Your task to perform on an android device: Go to CNN.com Image 0: 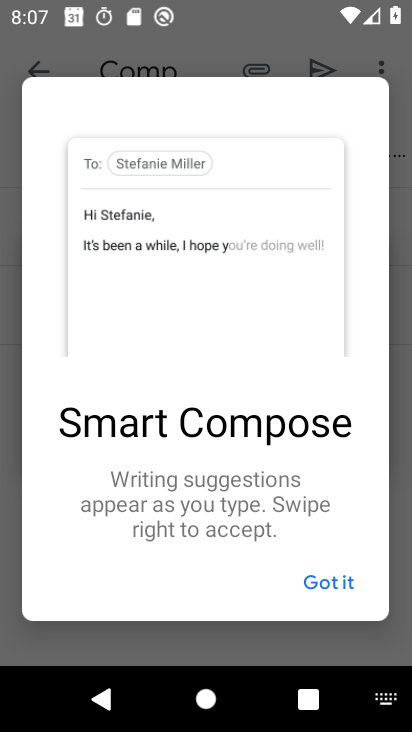
Step 0: press home button
Your task to perform on an android device: Go to CNN.com Image 1: 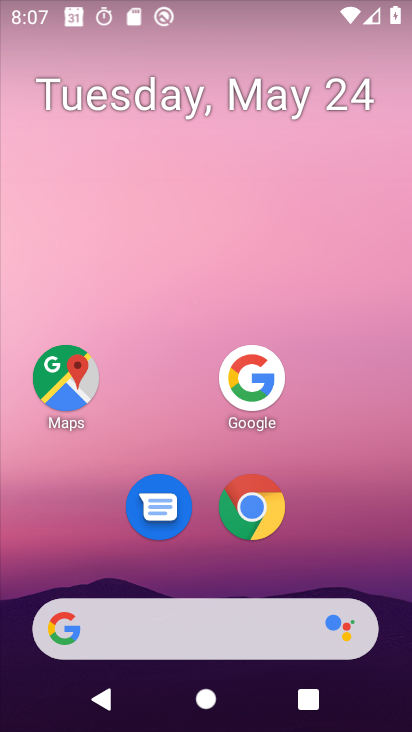
Step 1: click (252, 504)
Your task to perform on an android device: Go to CNN.com Image 2: 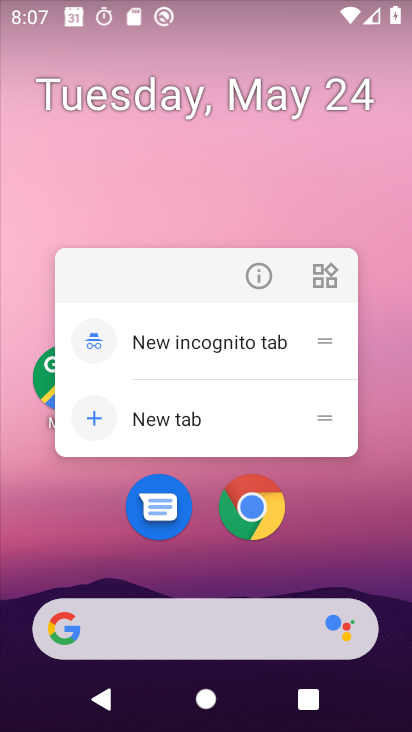
Step 2: click (249, 524)
Your task to perform on an android device: Go to CNN.com Image 3: 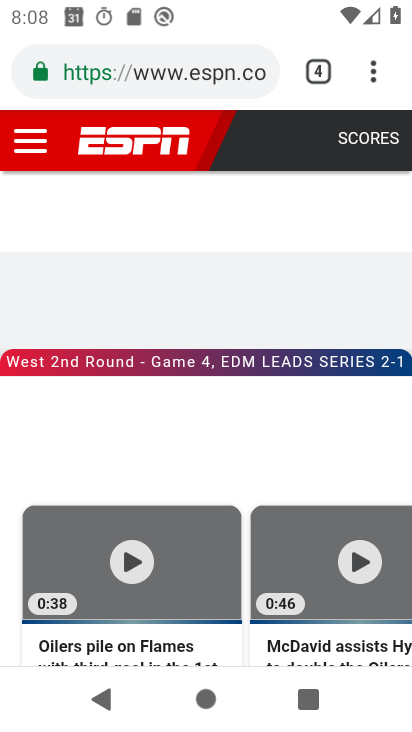
Step 3: drag from (379, 82) to (292, 146)
Your task to perform on an android device: Go to CNN.com Image 4: 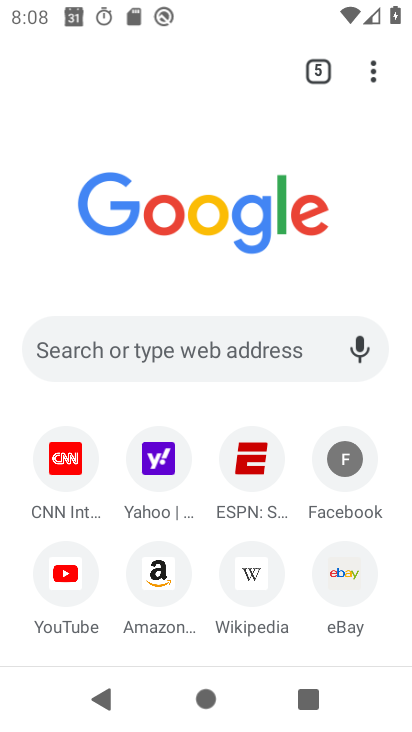
Step 4: click (71, 461)
Your task to perform on an android device: Go to CNN.com Image 5: 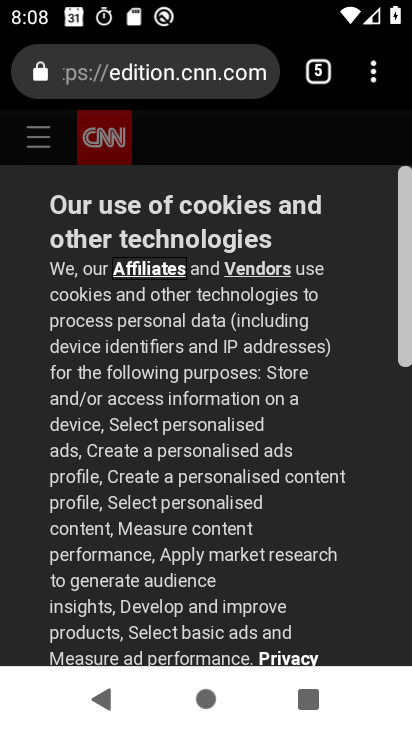
Step 5: drag from (214, 572) to (385, 216)
Your task to perform on an android device: Go to CNN.com Image 6: 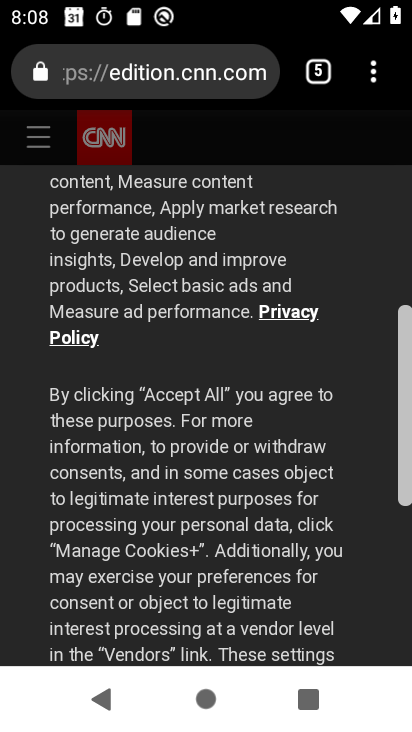
Step 6: drag from (241, 568) to (397, 238)
Your task to perform on an android device: Go to CNN.com Image 7: 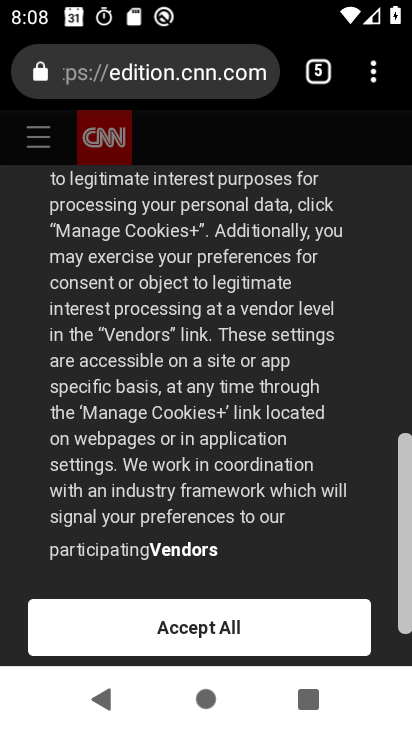
Step 7: click (205, 624)
Your task to perform on an android device: Go to CNN.com Image 8: 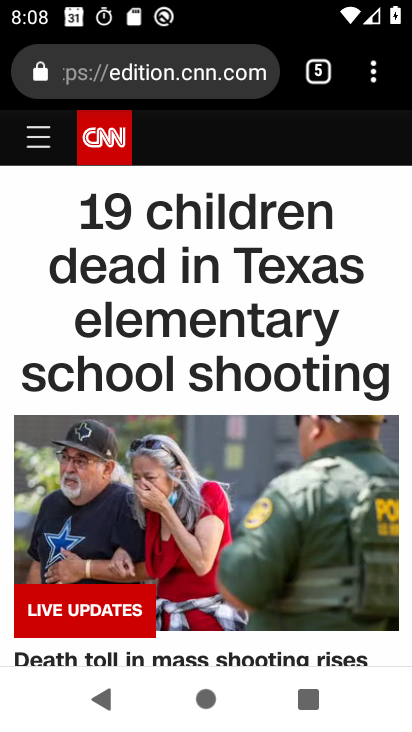
Step 8: task complete